Your task to perform on an android device: Open Chrome and go to settings Image 0: 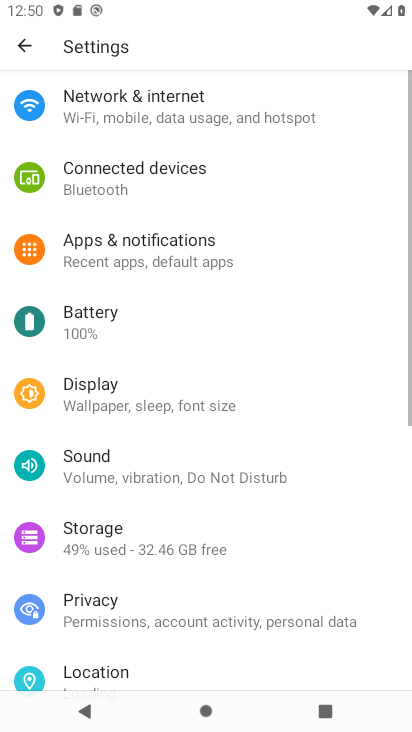
Step 0: press home button
Your task to perform on an android device: Open Chrome and go to settings Image 1: 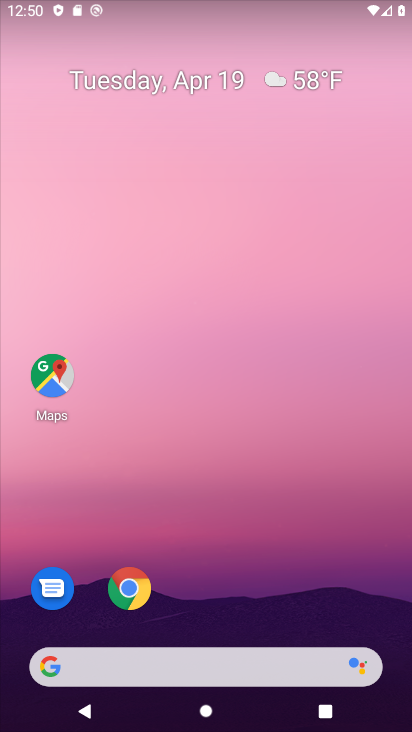
Step 1: click (143, 593)
Your task to perform on an android device: Open Chrome and go to settings Image 2: 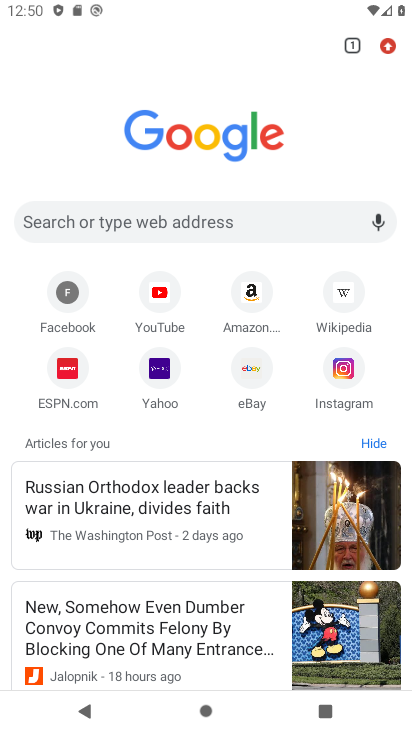
Step 2: click (391, 49)
Your task to perform on an android device: Open Chrome and go to settings Image 3: 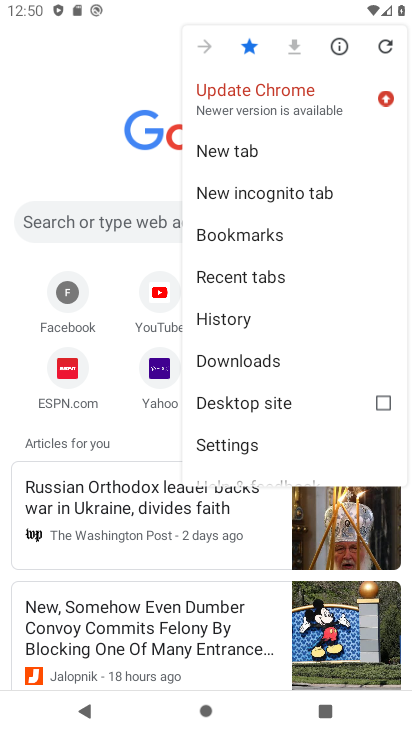
Step 3: click (234, 453)
Your task to perform on an android device: Open Chrome and go to settings Image 4: 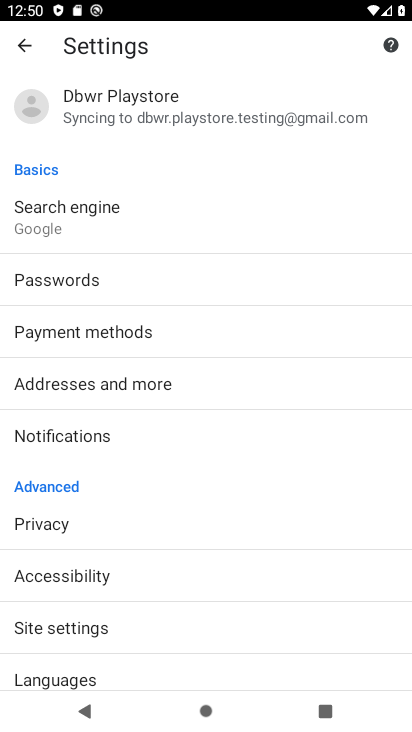
Step 4: task complete